Your task to perform on an android device: Do I have any events tomorrow? Image 0: 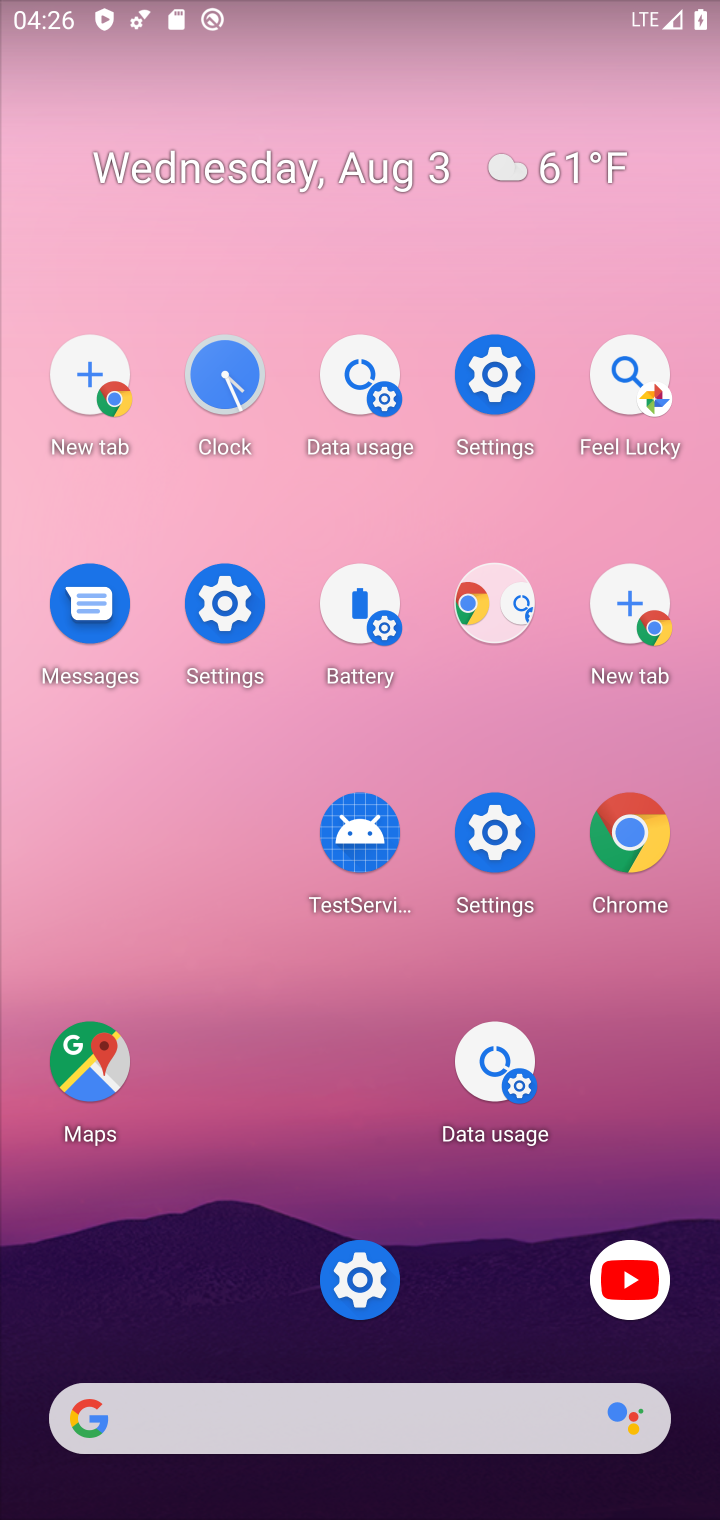
Step 0: drag from (388, 756) to (344, 487)
Your task to perform on an android device: Do I have any events tomorrow? Image 1: 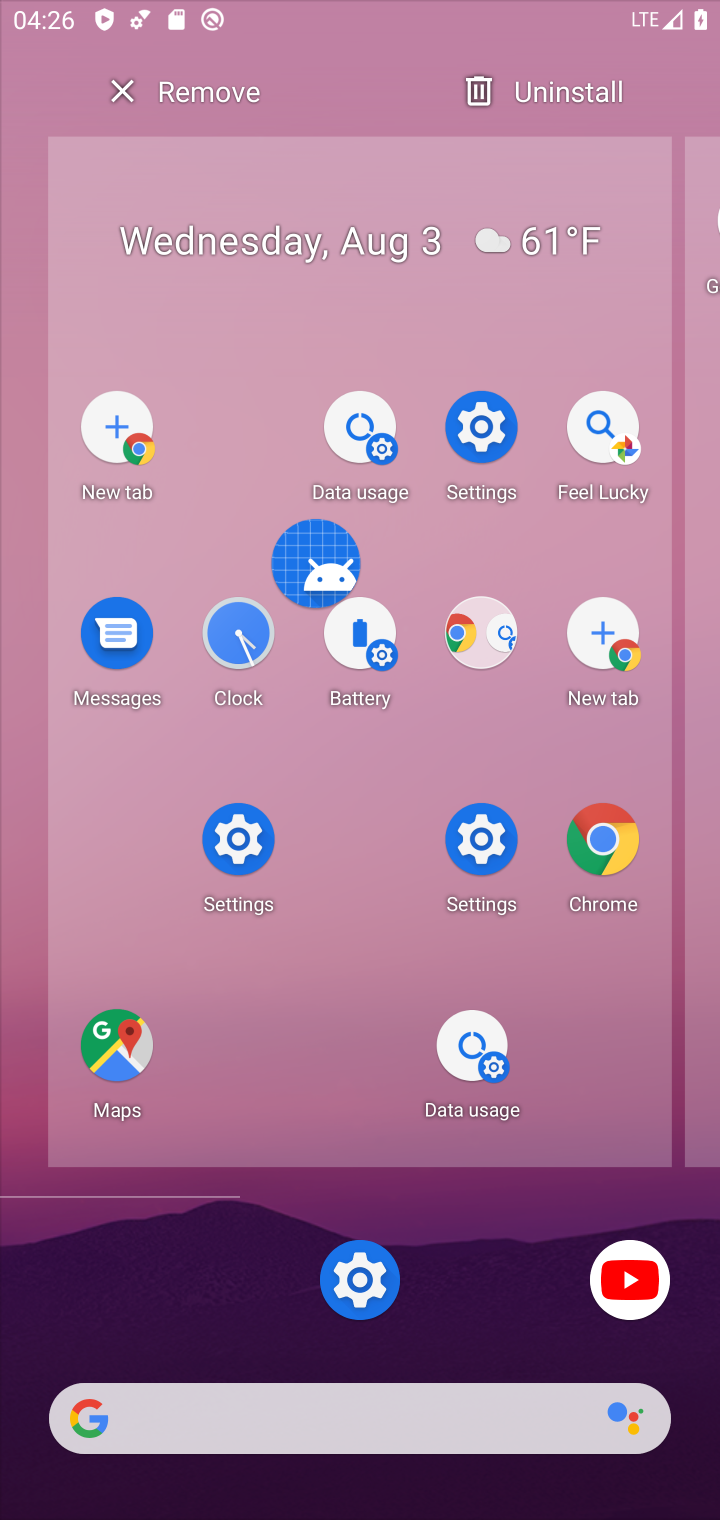
Step 1: click (143, 91)
Your task to perform on an android device: Do I have any events tomorrow? Image 2: 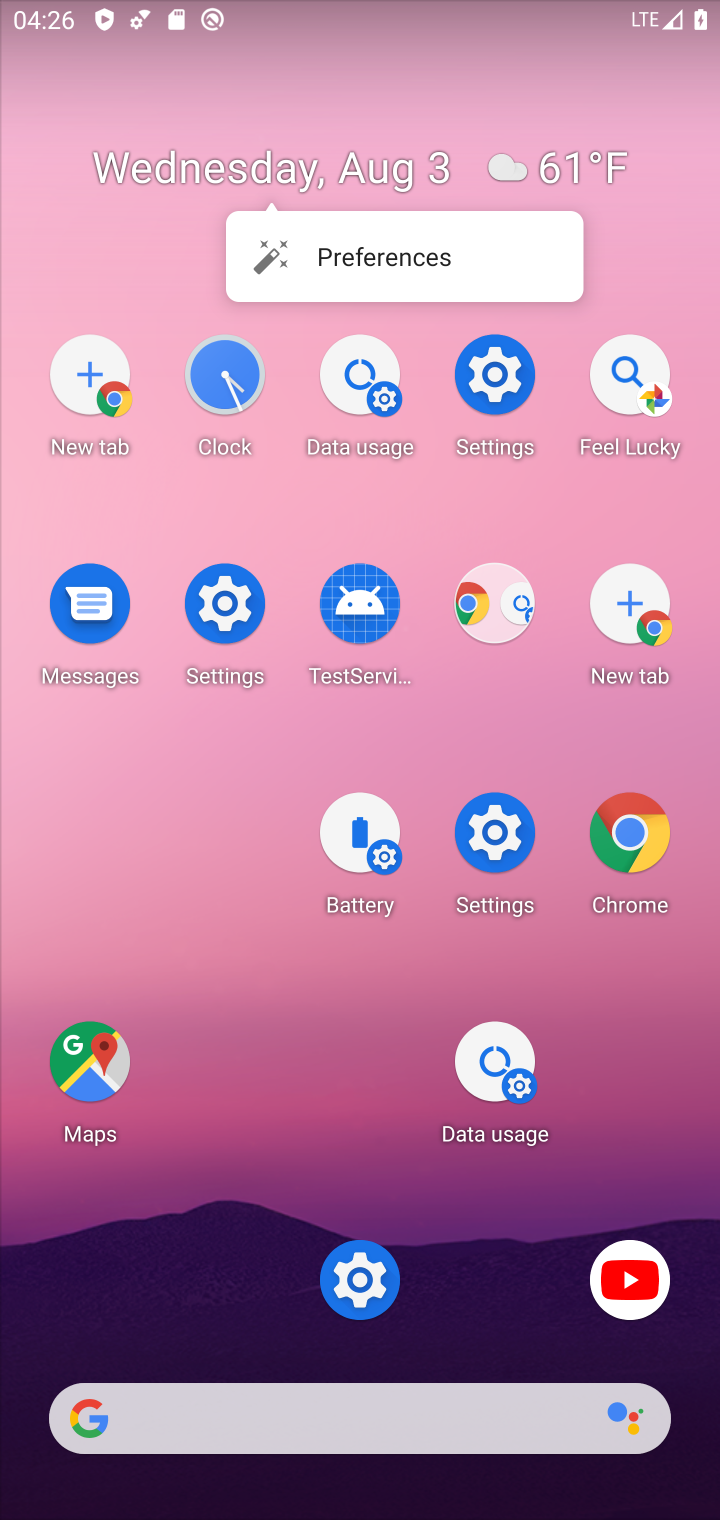
Step 2: drag from (460, 939) to (313, 154)
Your task to perform on an android device: Do I have any events tomorrow? Image 3: 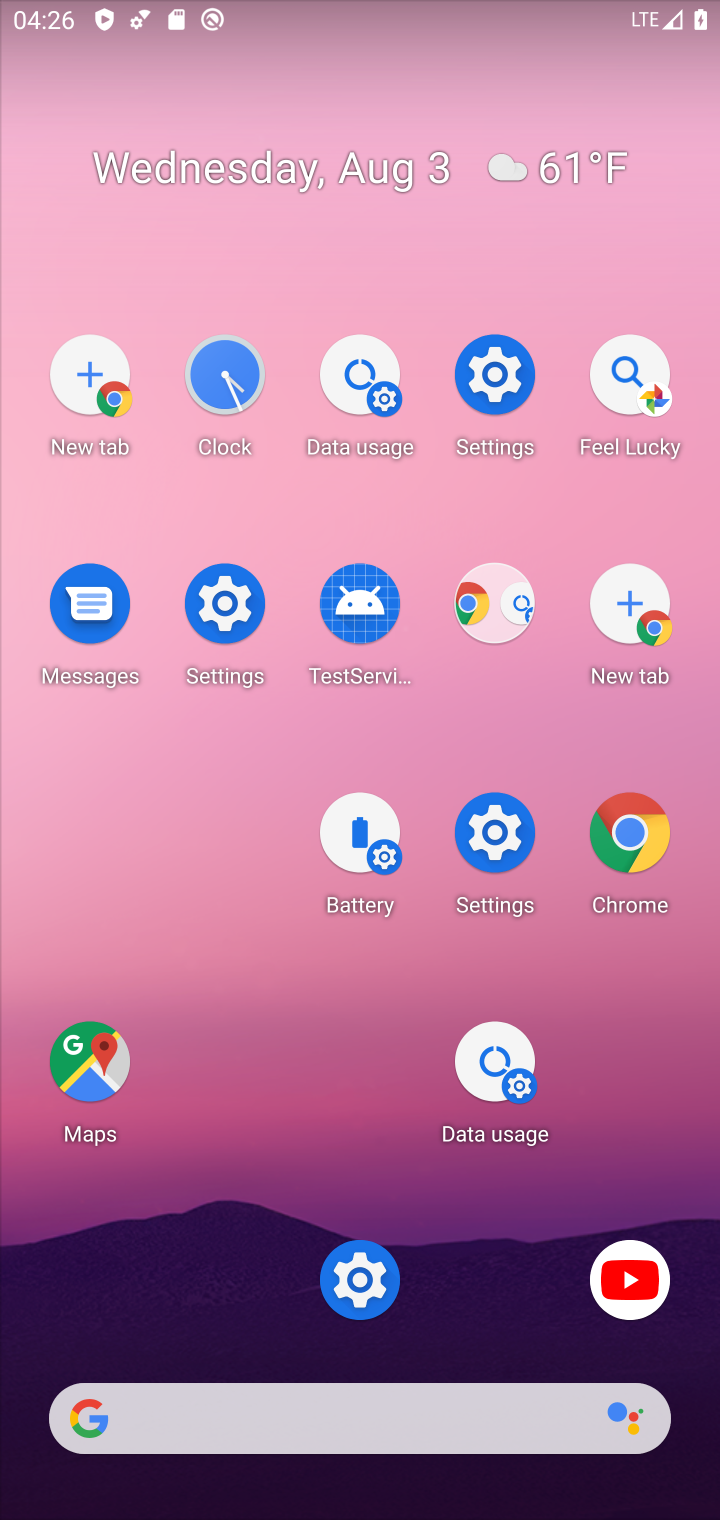
Step 3: drag from (507, 1011) to (544, 257)
Your task to perform on an android device: Do I have any events tomorrow? Image 4: 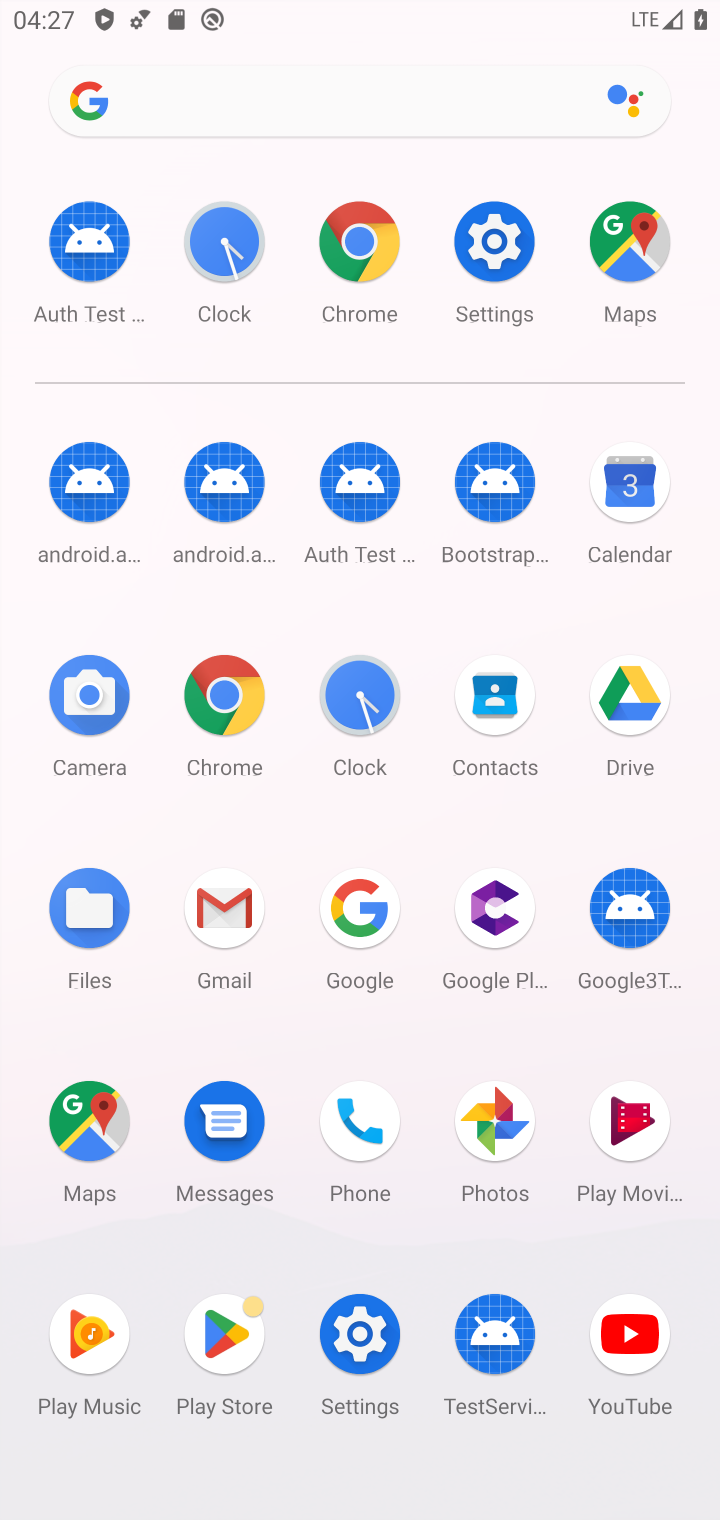
Step 4: click (626, 475)
Your task to perform on an android device: Do I have any events tomorrow? Image 5: 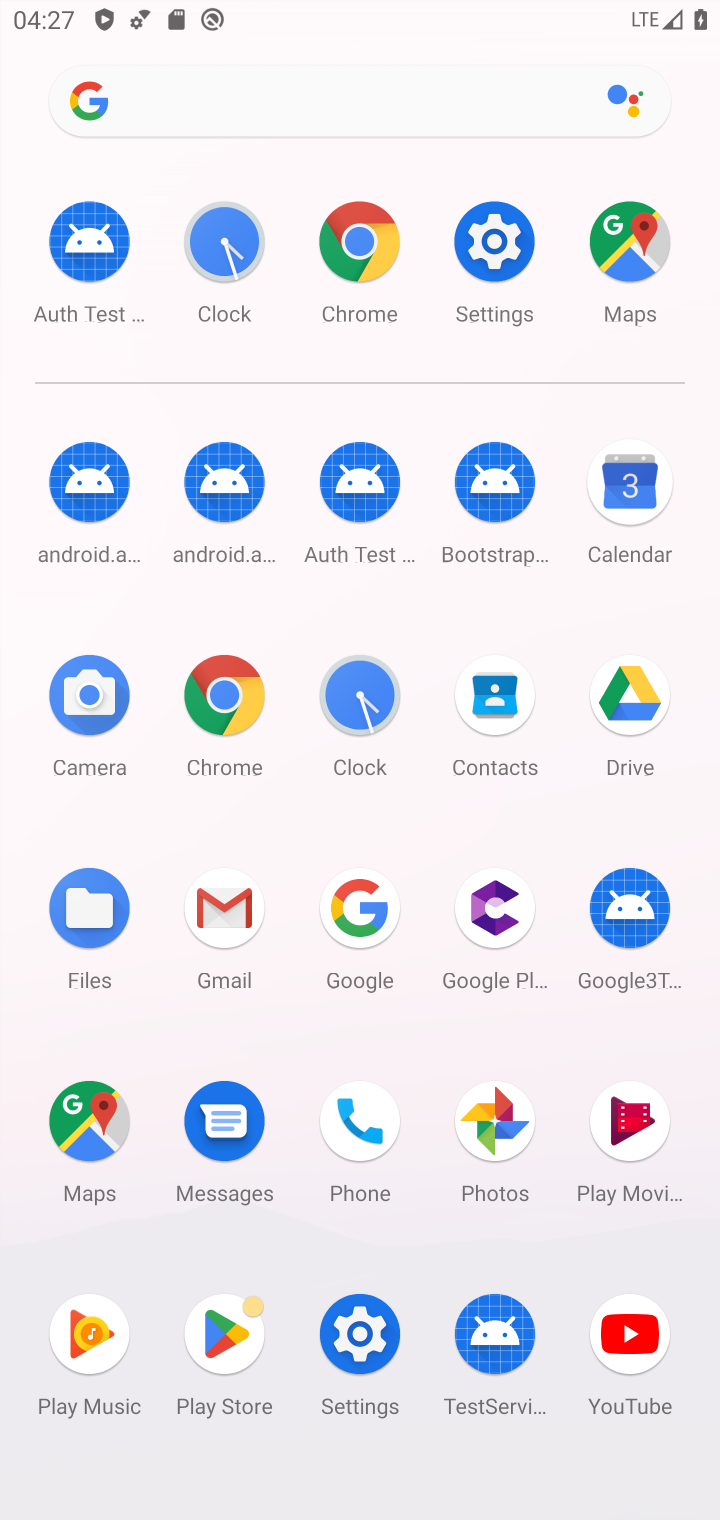
Step 5: click (626, 475)
Your task to perform on an android device: Do I have any events tomorrow? Image 6: 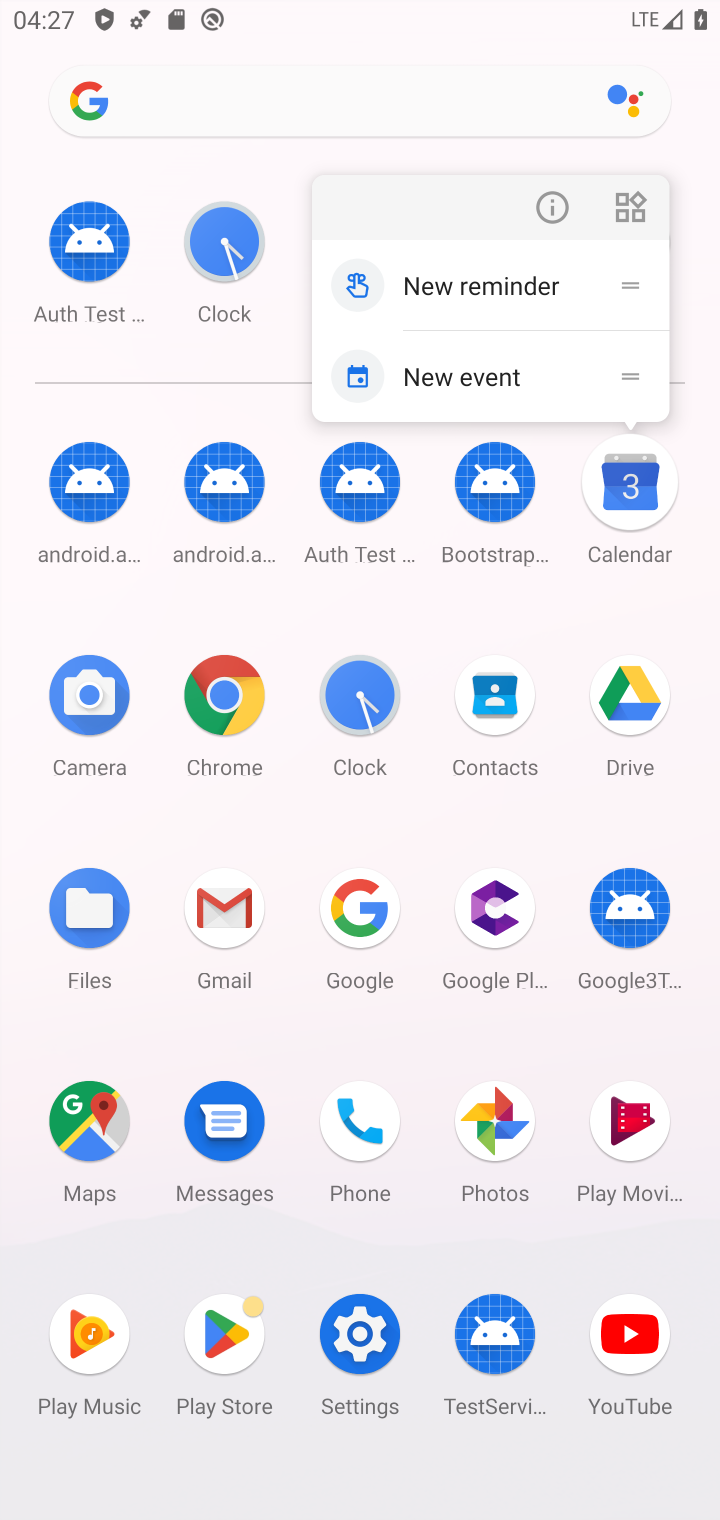
Step 6: click (630, 488)
Your task to perform on an android device: Do I have any events tomorrow? Image 7: 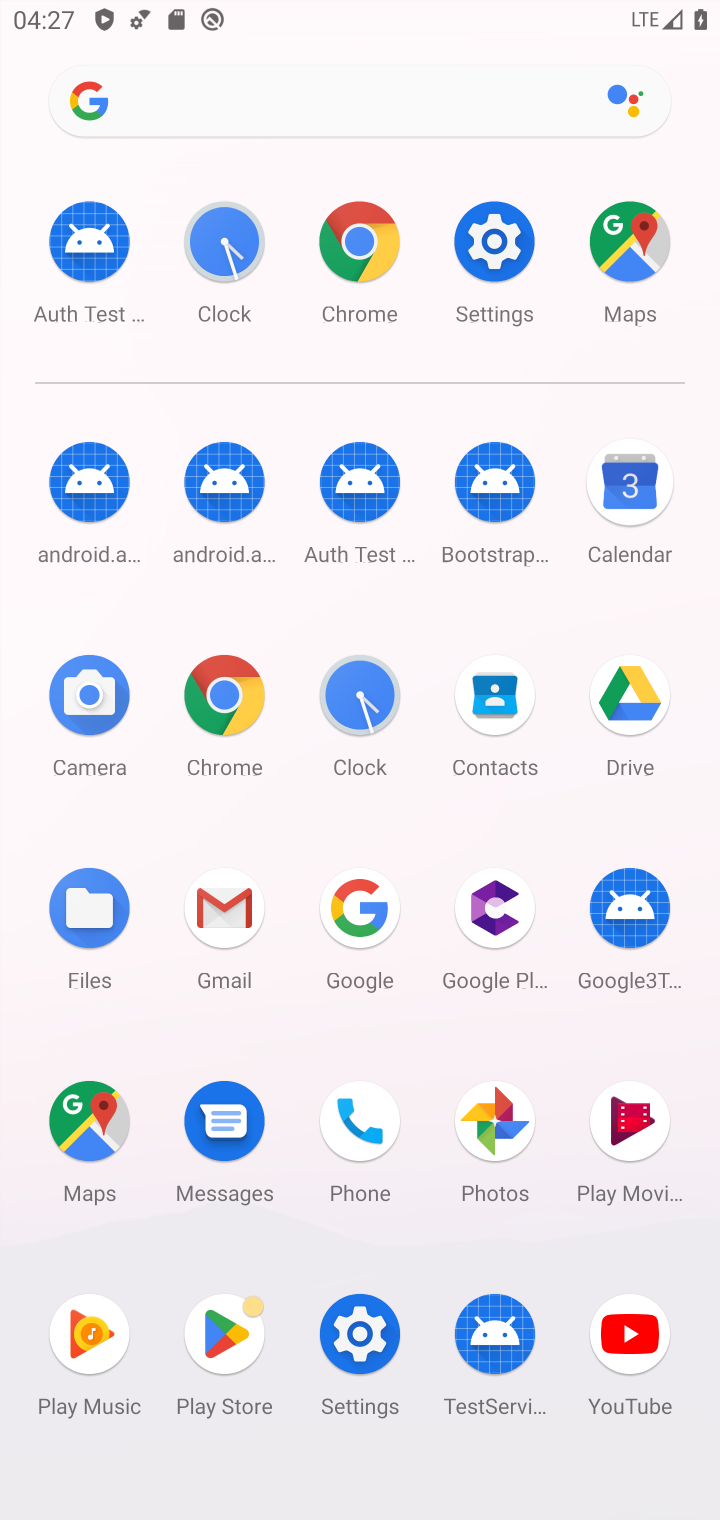
Step 7: click (463, 357)
Your task to perform on an android device: Do I have any events tomorrow? Image 8: 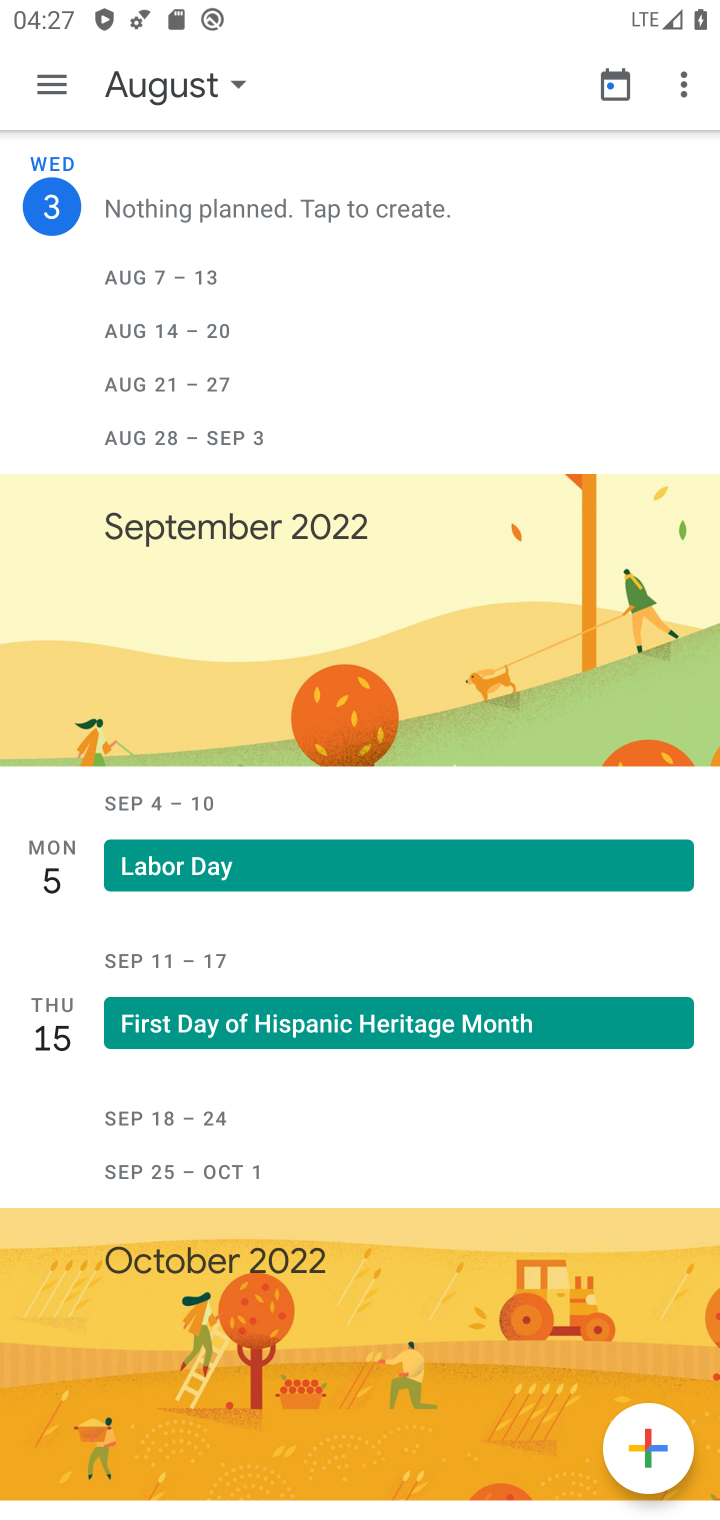
Step 8: click (230, 80)
Your task to perform on an android device: Do I have any events tomorrow? Image 9: 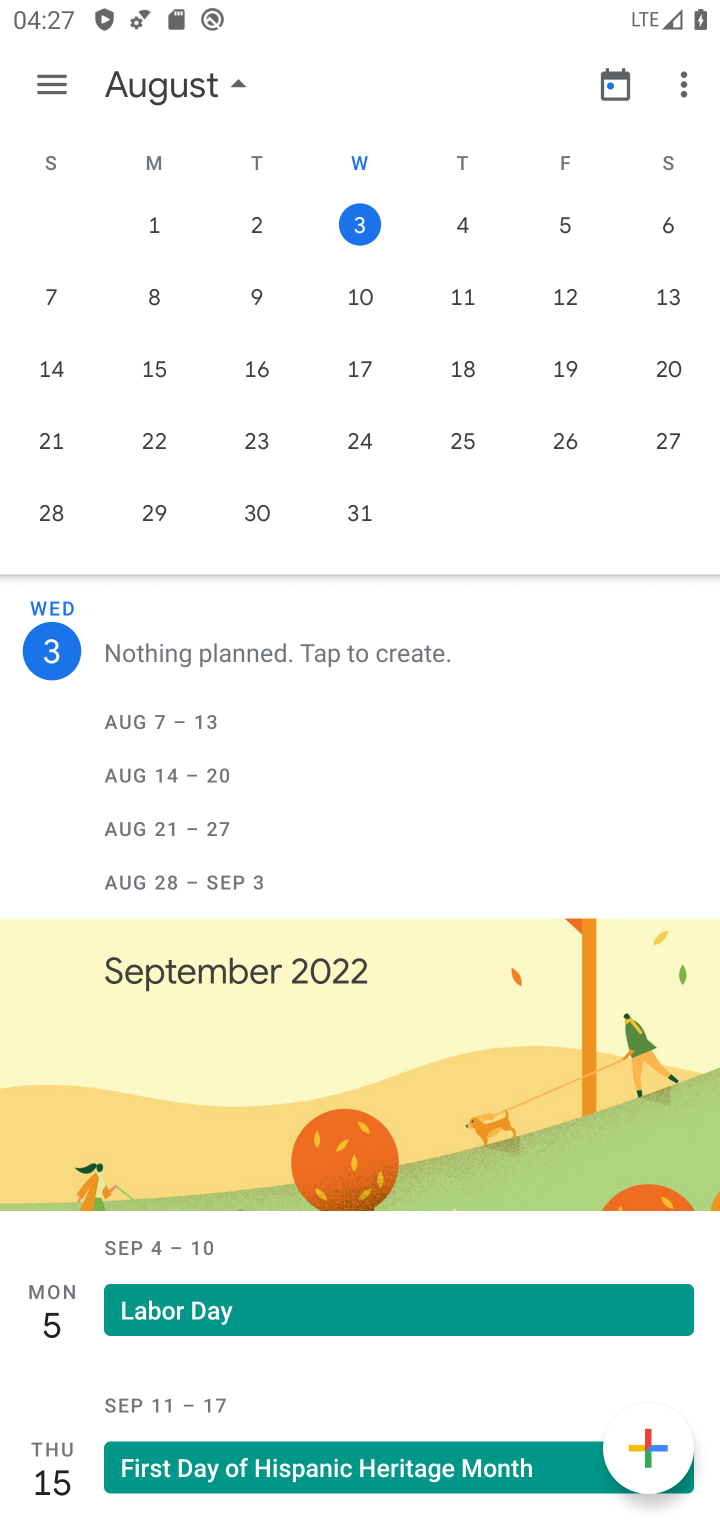
Step 9: click (0, 340)
Your task to perform on an android device: Do I have any events tomorrow? Image 10: 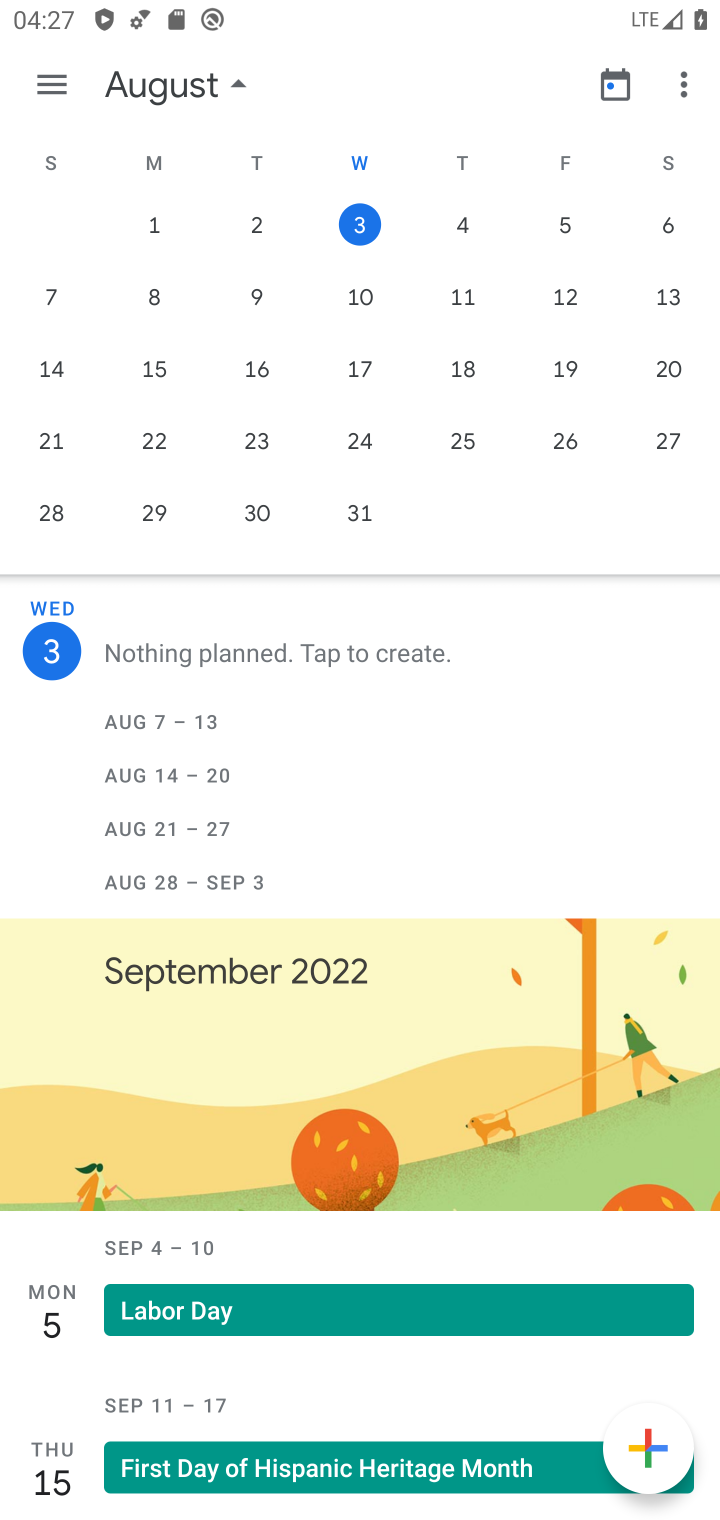
Step 10: drag from (590, 341) to (23, 262)
Your task to perform on an android device: Do I have any events tomorrow? Image 11: 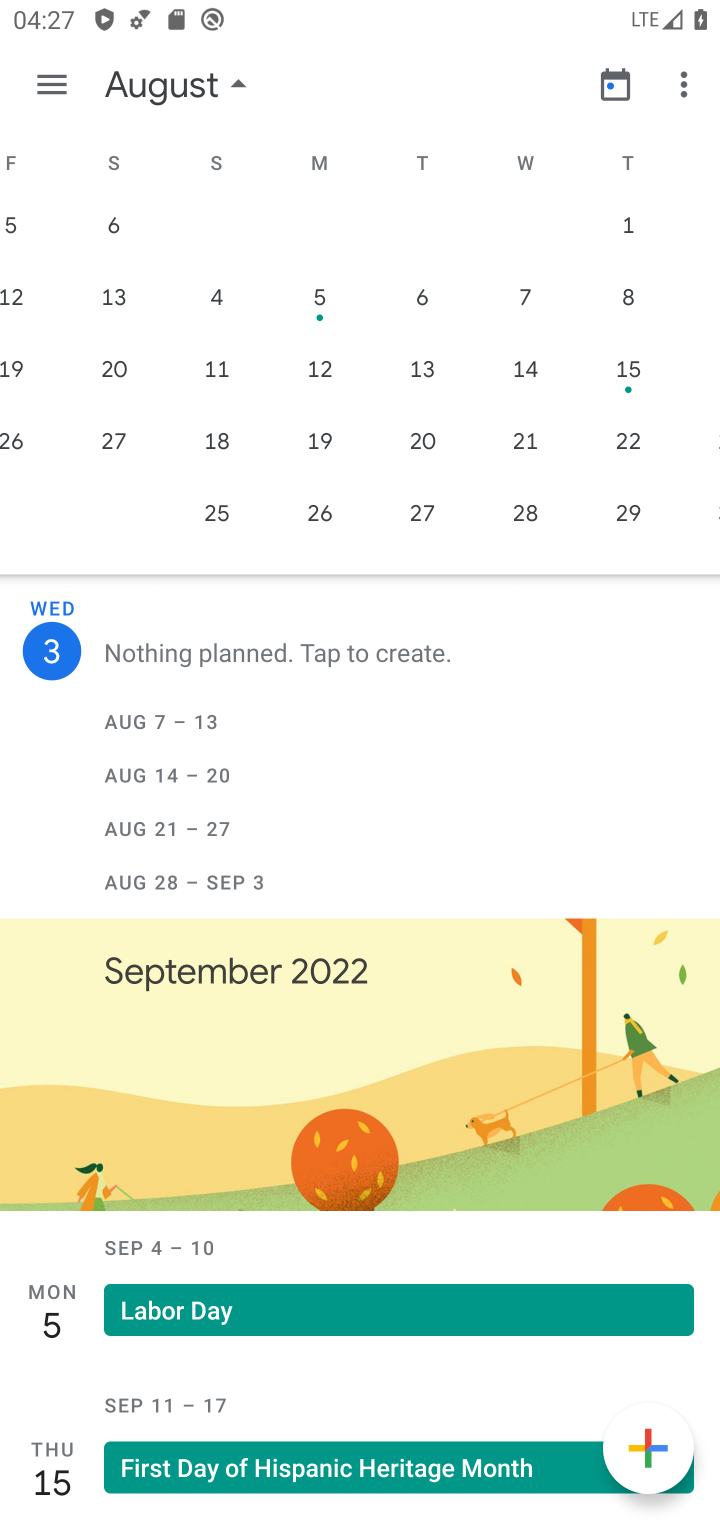
Step 11: drag from (645, 294) to (2, 230)
Your task to perform on an android device: Do I have any events tomorrow? Image 12: 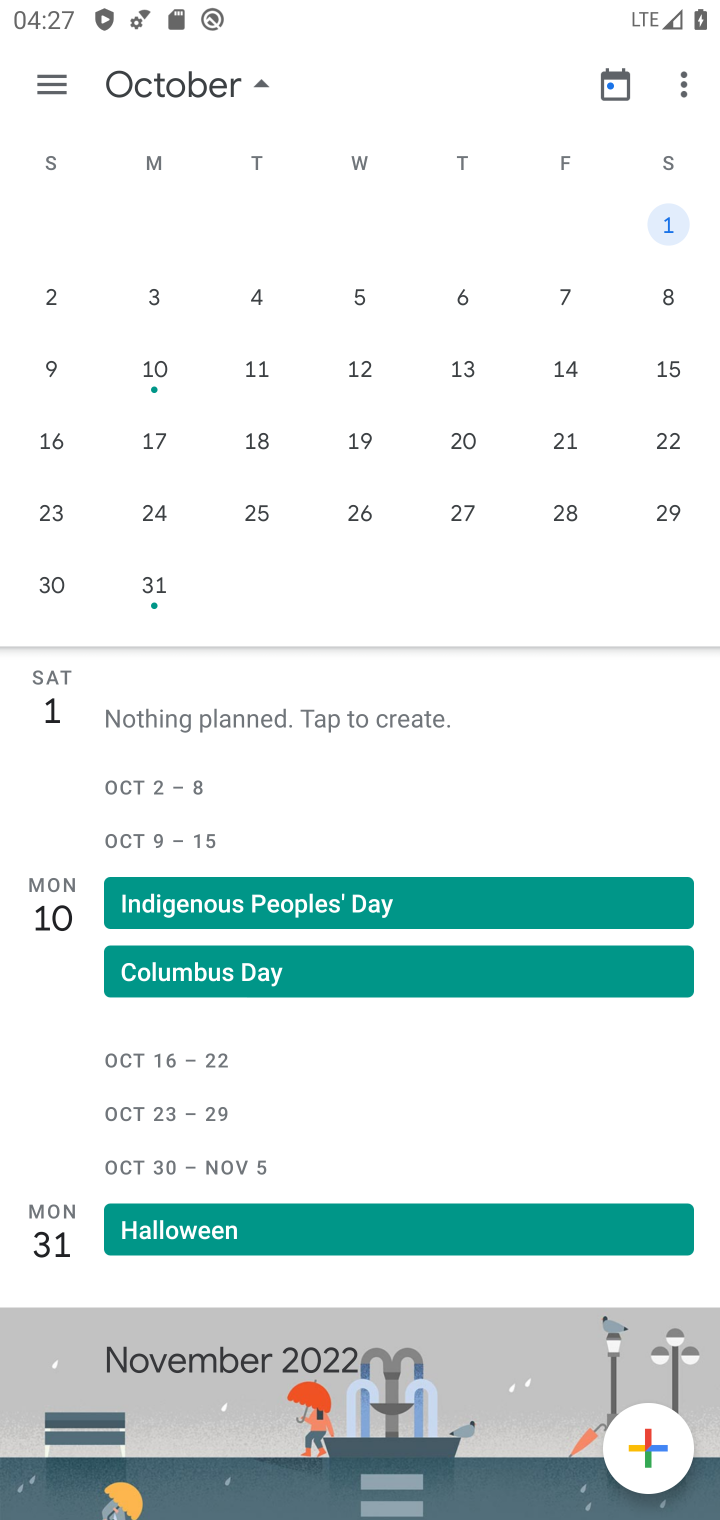
Step 12: drag from (93, 421) to (704, 493)
Your task to perform on an android device: Do I have any events tomorrow? Image 13: 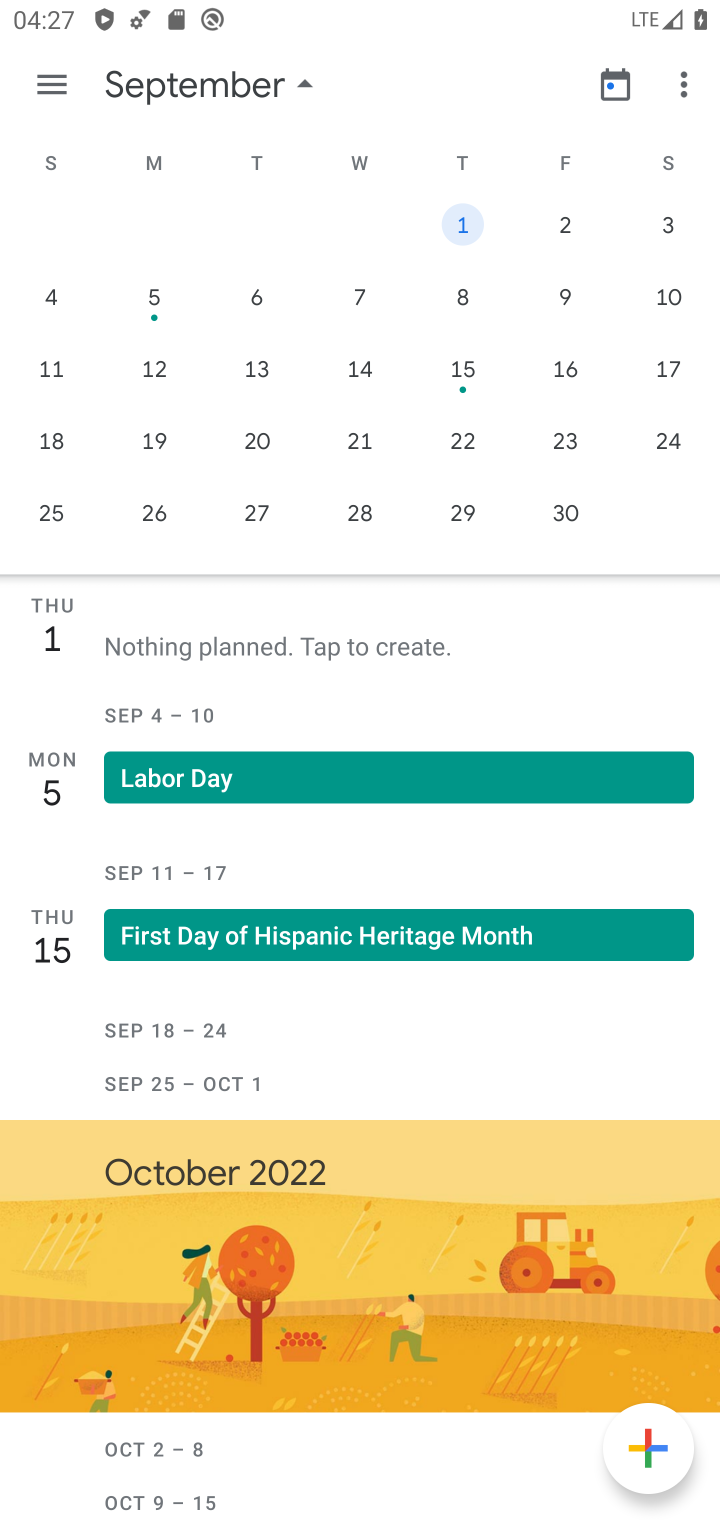
Step 13: drag from (61, 293) to (712, 460)
Your task to perform on an android device: Do I have any events tomorrow? Image 14: 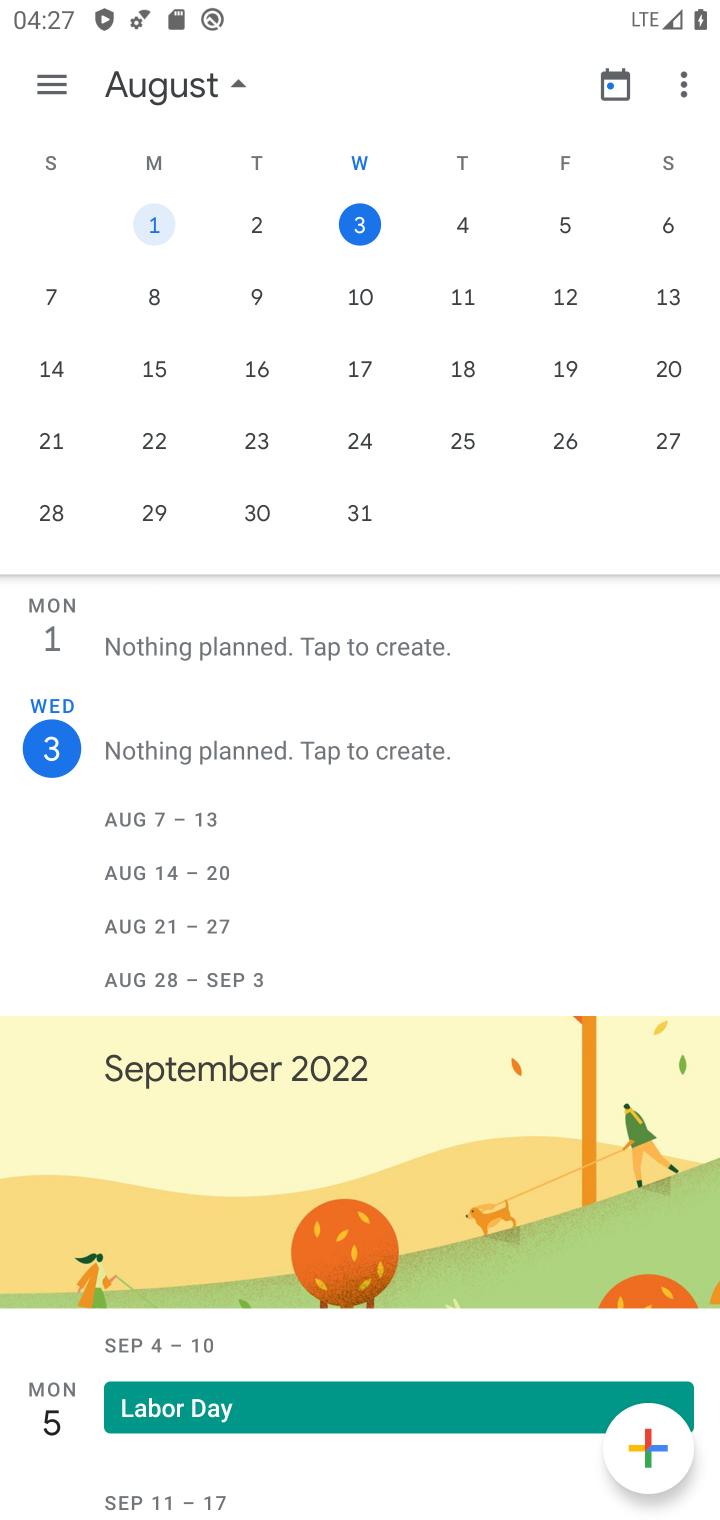
Step 14: click (456, 215)
Your task to perform on an android device: Do I have any events tomorrow? Image 15: 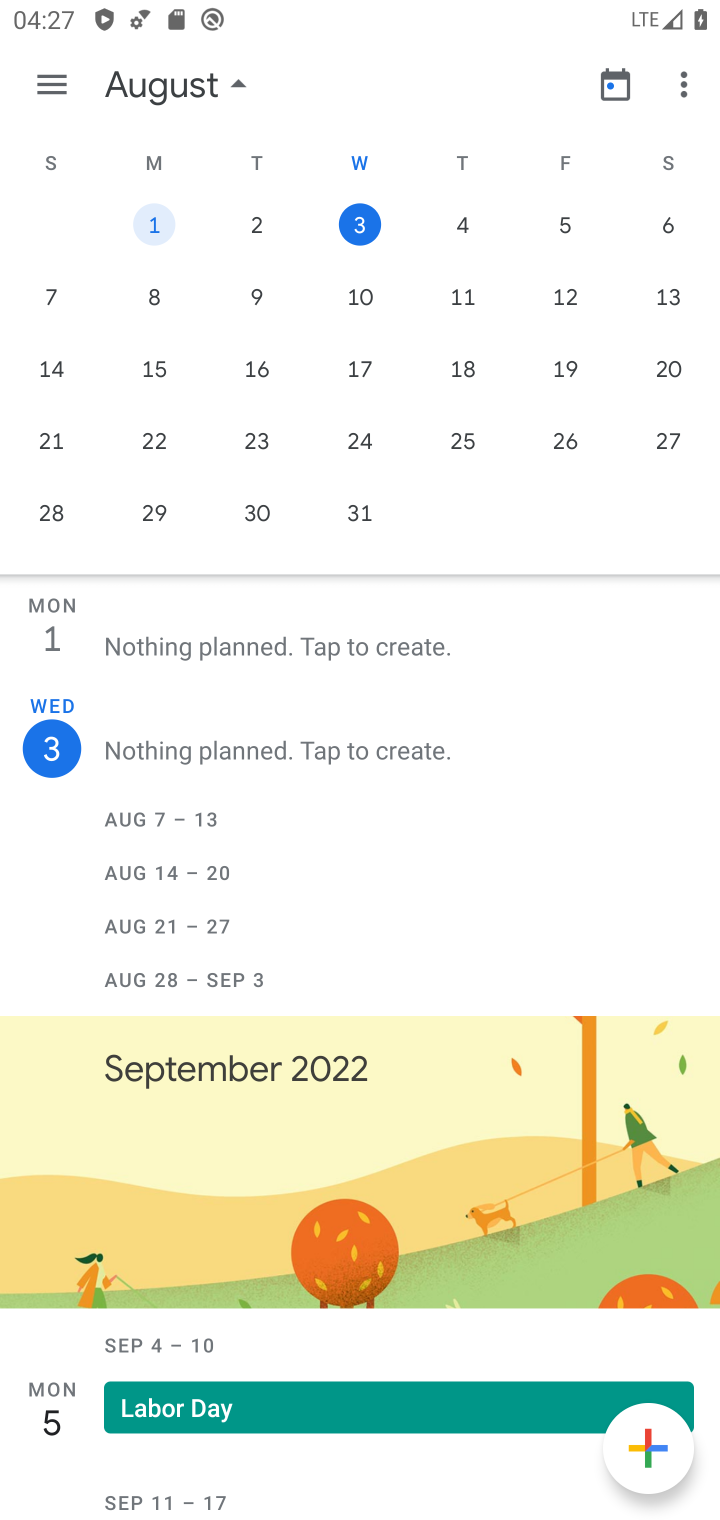
Step 15: click (460, 219)
Your task to perform on an android device: Do I have any events tomorrow? Image 16: 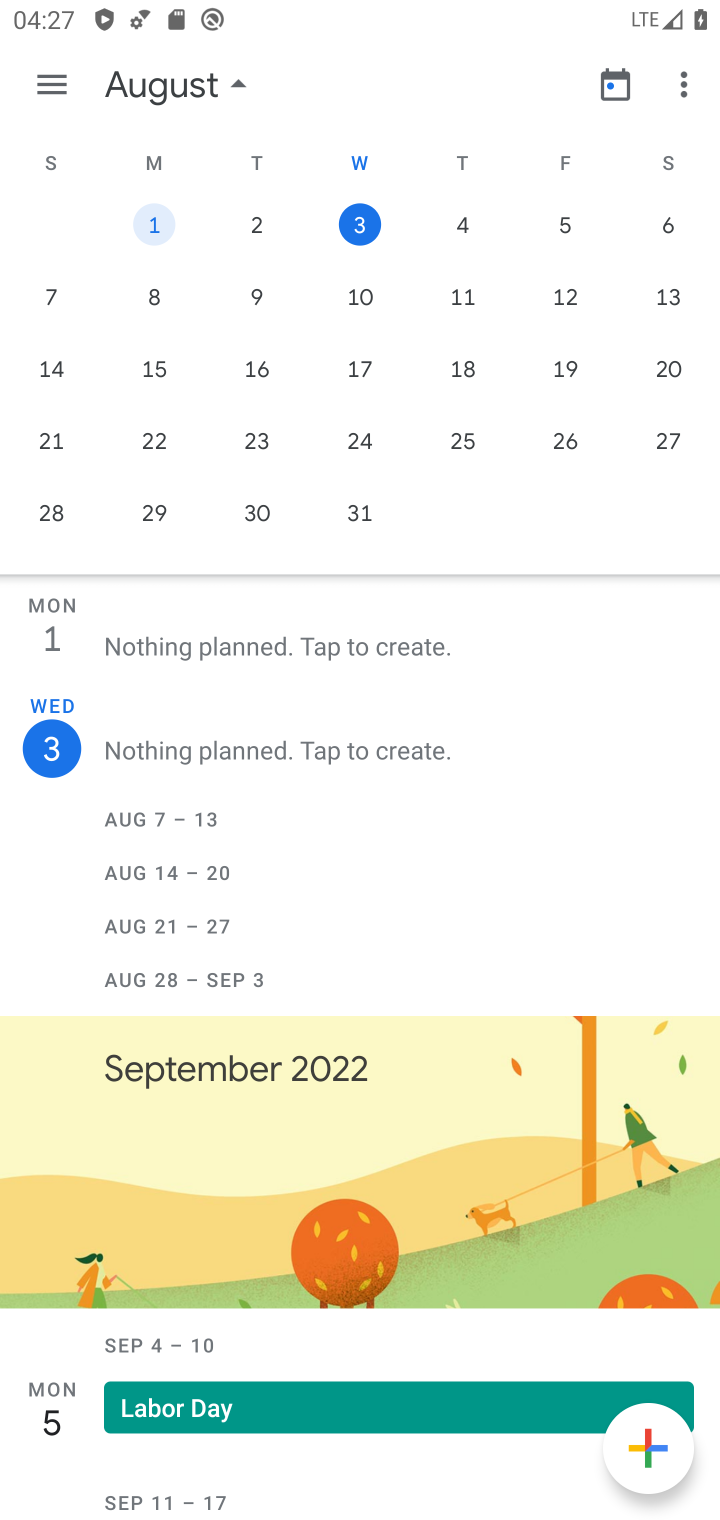
Step 16: click (460, 219)
Your task to perform on an android device: Do I have any events tomorrow? Image 17: 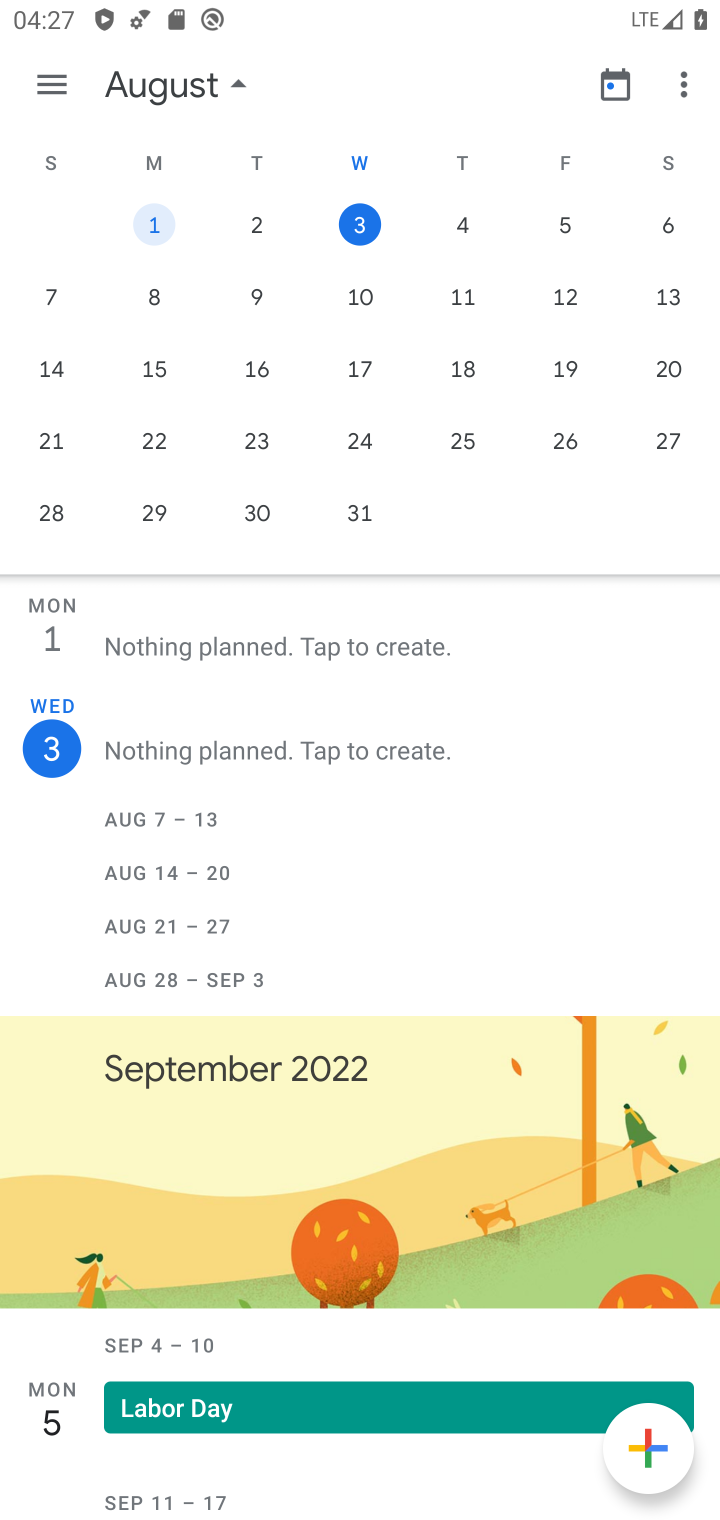
Step 17: click (464, 222)
Your task to perform on an android device: Do I have any events tomorrow? Image 18: 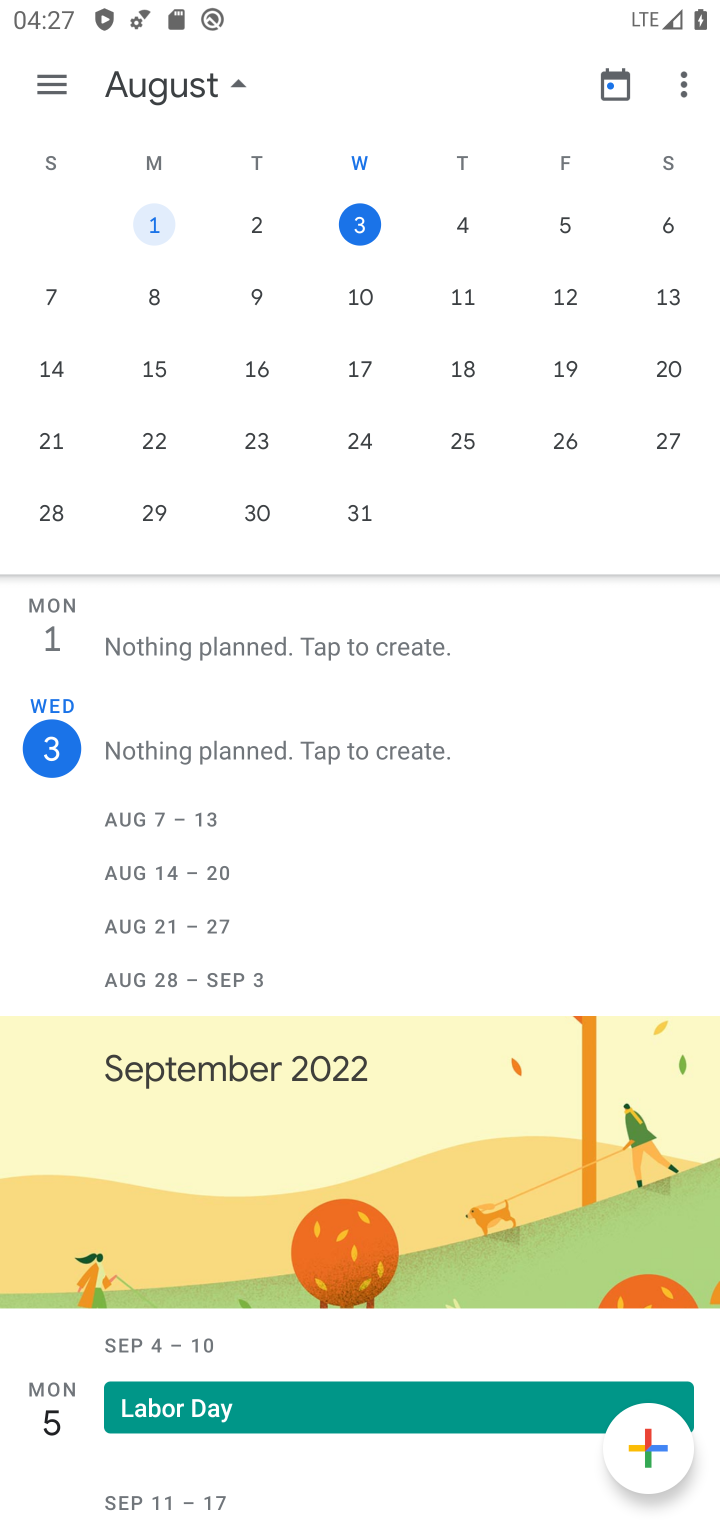
Step 18: click (468, 213)
Your task to perform on an android device: Do I have any events tomorrow? Image 19: 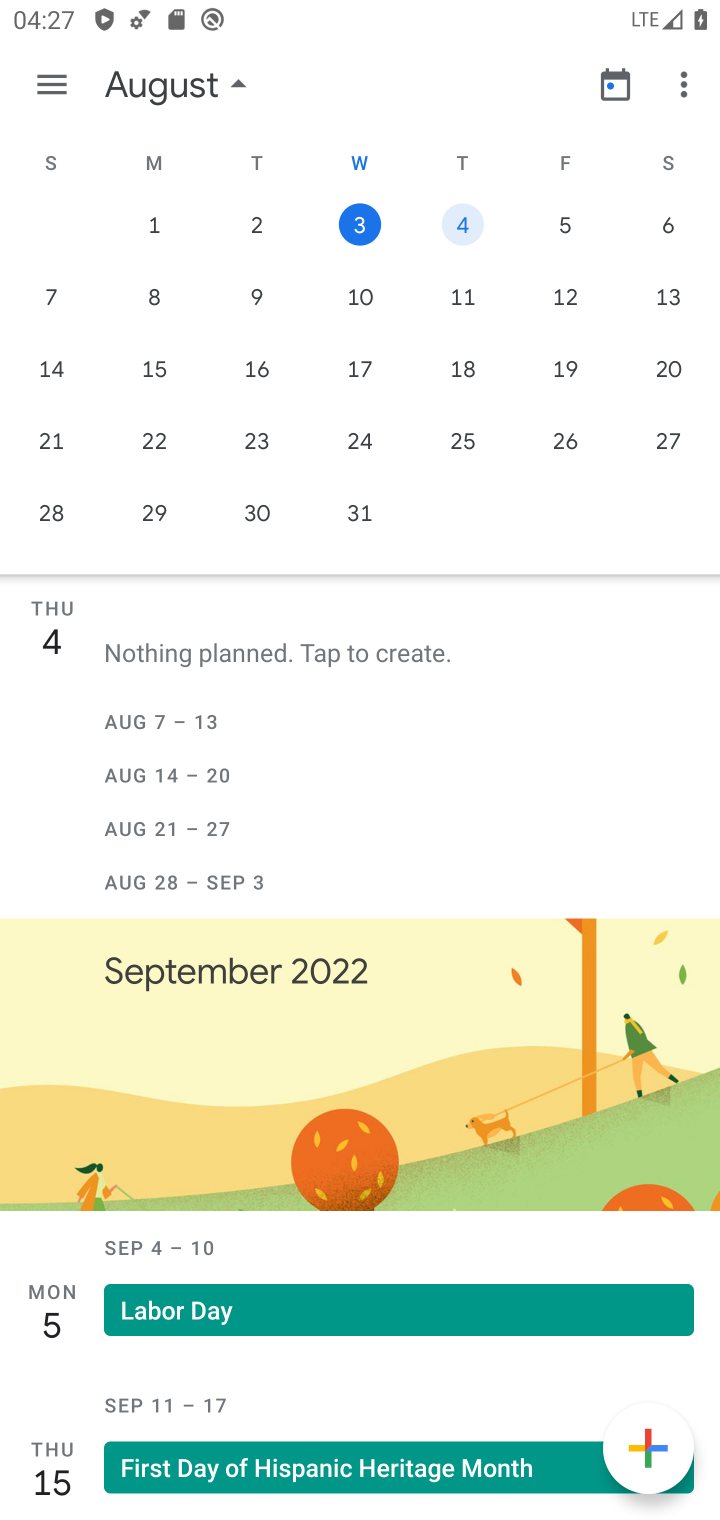
Step 19: task complete